Your task to perform on an android device: Is it going to rain this weekend? Image 0: 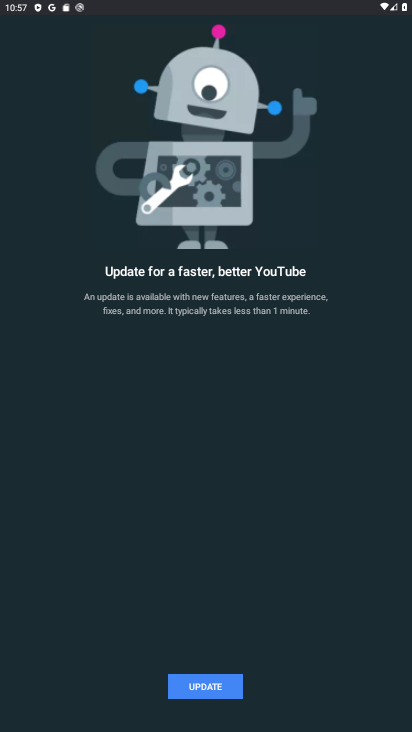
Step 0: press home button
Your task to perform on an android device: Is it going to rain this weekend? Image 1: 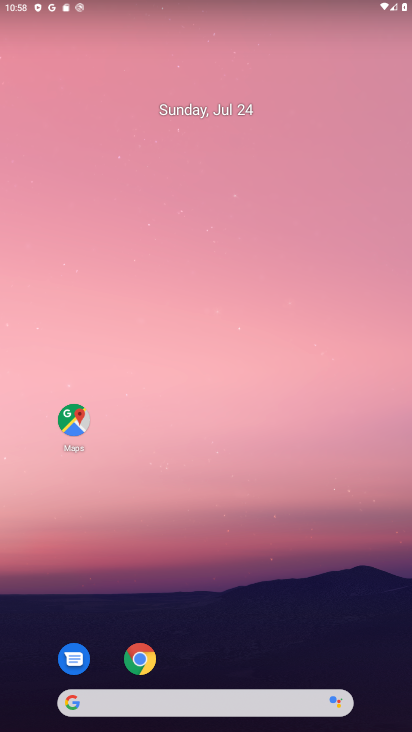
Step 1: click (130, 651)
Your task to perform on an android device: Is it going to rain this weekend? Image 2: 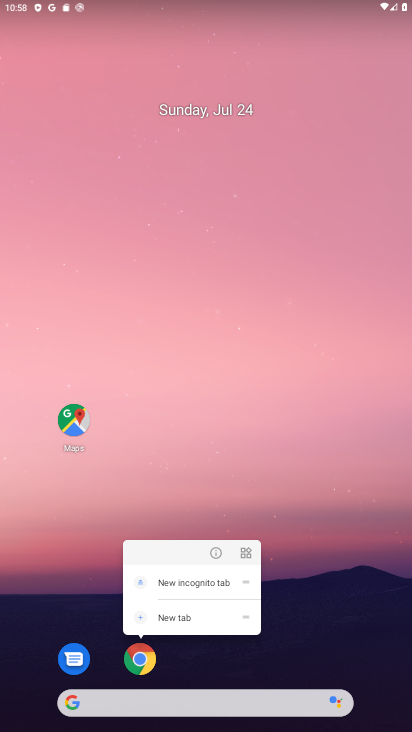
Step 2: click (130, 651)
Your task to perform on an android device: Is it going to rain this weekend? Image 3: 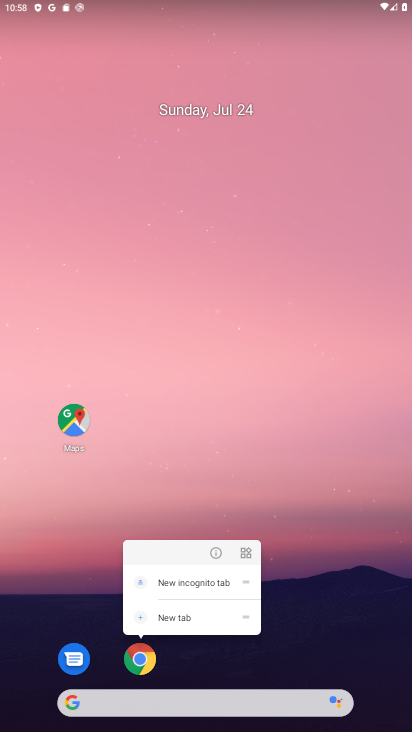
Step 3: click (130, 651)
Your task to perform on an android device: Is it going to rain this weekend? Image 4: 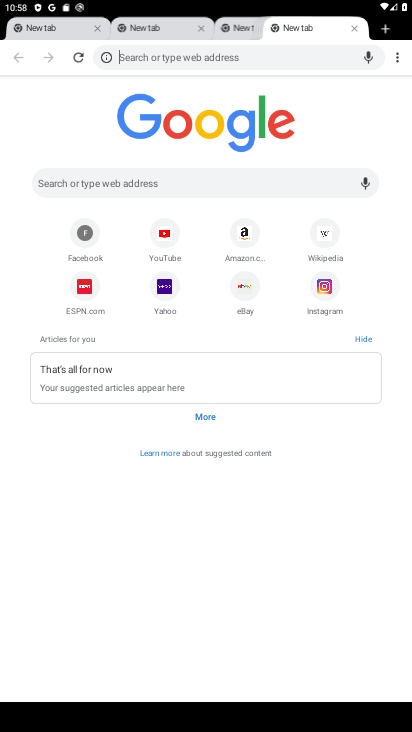
Step 4: click (151, 175)
Your task to perform on an android device: Is it going to rain this weekend? Image 5: 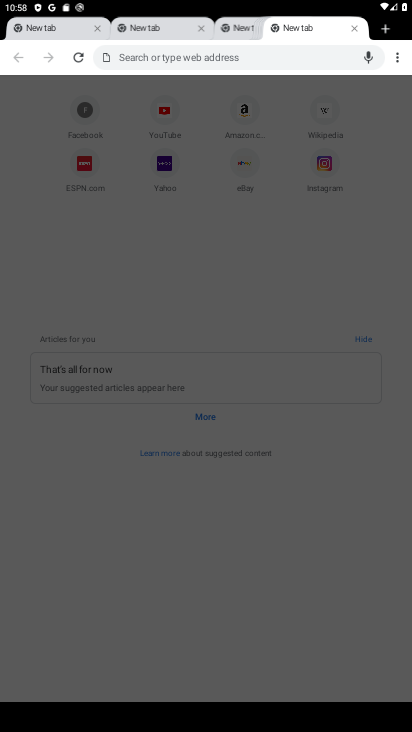
Step 5: type "Is it going to rain this weekend? "
Your task to perform on an android device: Is it going to rain this weekend? Image 6: 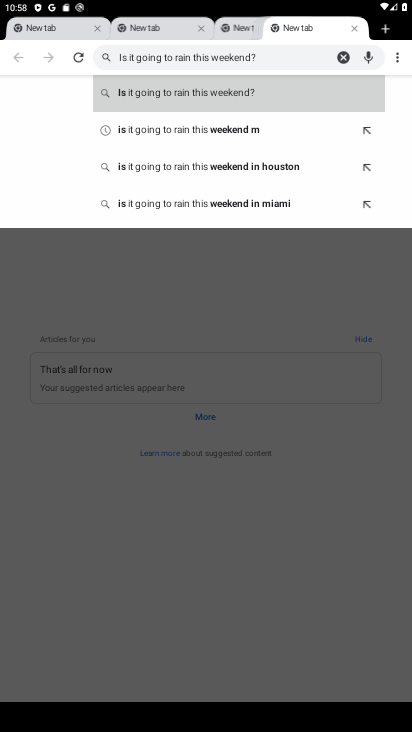
Step 6: click (155, 91)
Your task to perform on an android device: Is it going to rain this weekend? Image 7: 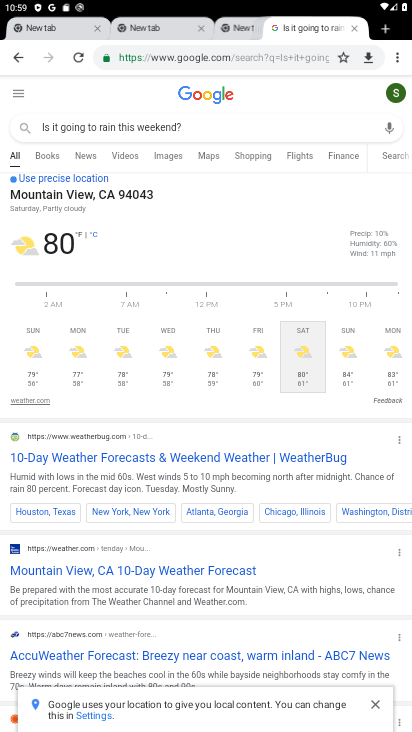
Step 7: task complete